Your task to perform on an android device: toggle javascript in the chrome app Image 0: 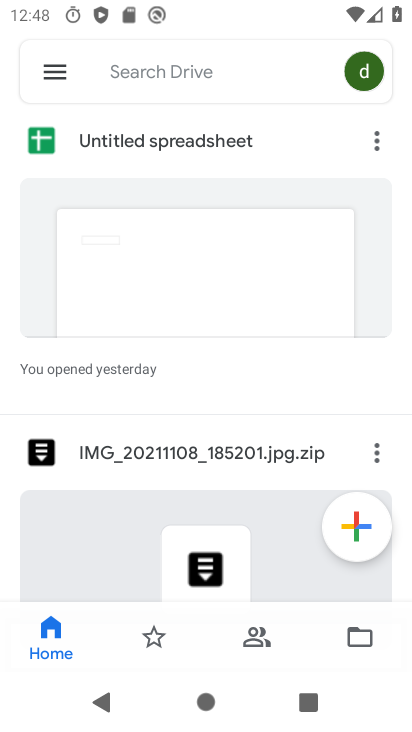
Step 0: press home button
Your task to perform on an android device: toggle javascript in the chrome app Image 1: 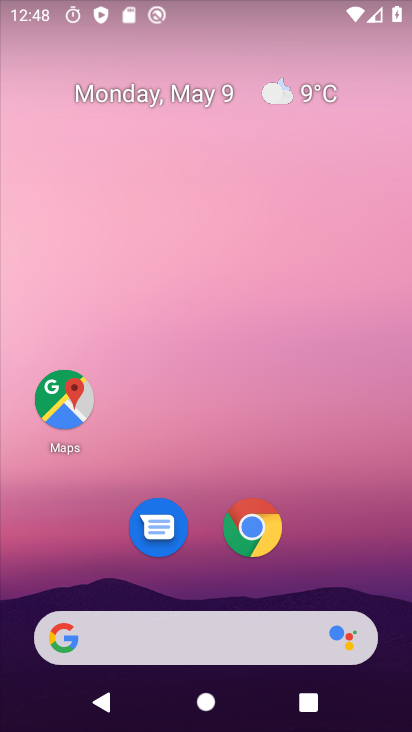
Step 1: click (246, 534)
Your task to perform on an android device: toggle javascript in the chrome app Image 2: 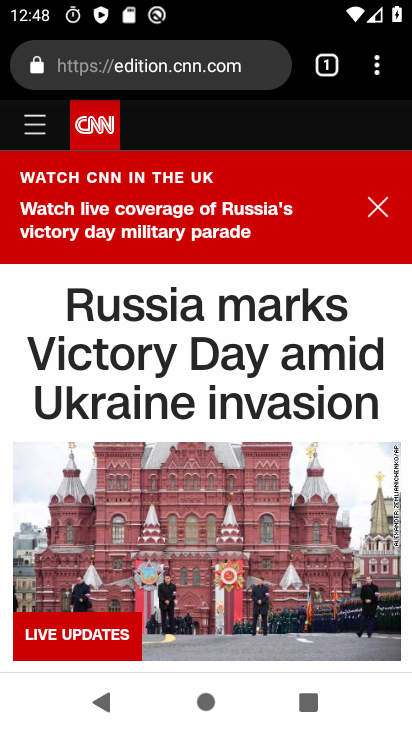
Step 2: drag from (372, 64) to (137, 570)
Your task to perform on an android device: toggle javascript in the chrome app Image 3: 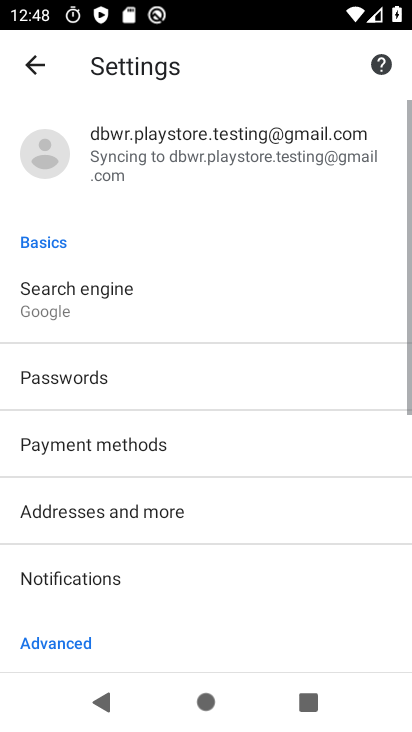
Step 3: drag from (143, 563) to (249, 57)
Your task to perform on an android device: toggle javascript in the chrome app Image 4: 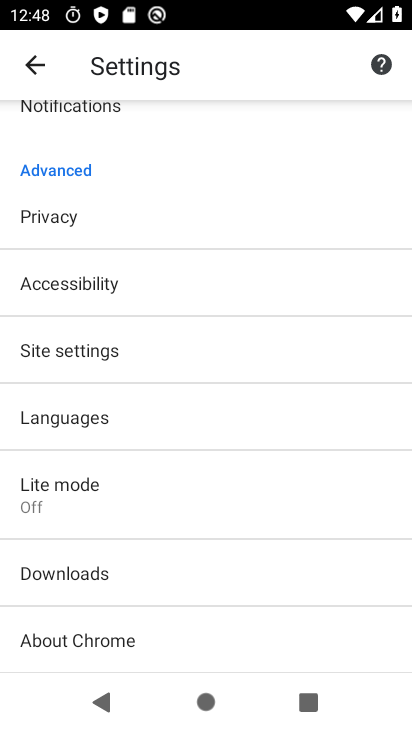
Step 4: click (109, 351)
Your task to perform on an android device: toggle javascript in the chrome app Image 5: 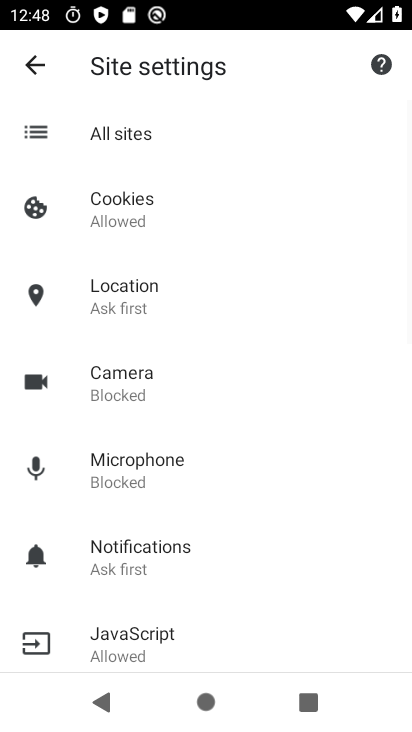
Step 5: click (137, 652)
Your task to perform on an android device: toggle javascript in the chrome app Image 6: 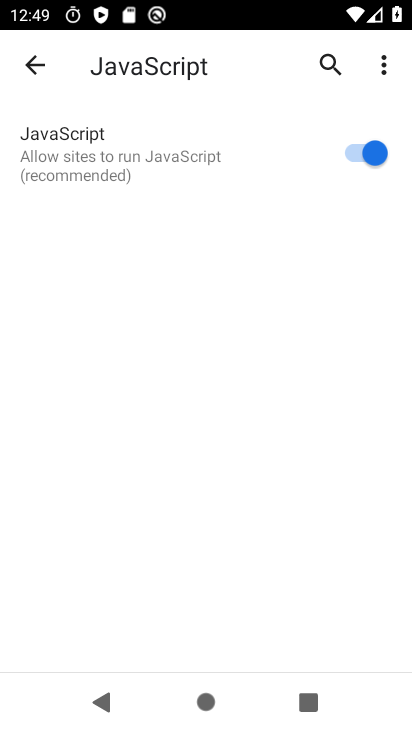
Step 6: click (367, 160)
Your task to perform on an android device: toggle javascript in the chrome app Image 7: 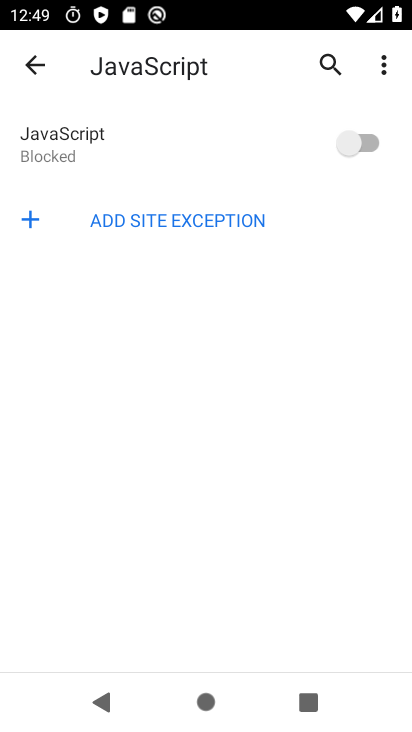
Step 7: task complete